Your task to perform on an android device: find snoozed emails in the gmail app Image 0: 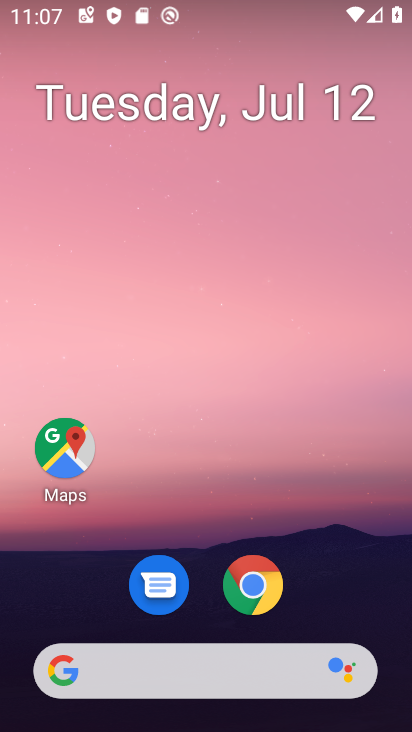
Step 0: drag from (330, 572) to (357, 97)
Your task to perform on an android device: find snoozed emails in the gmail app Image 1: 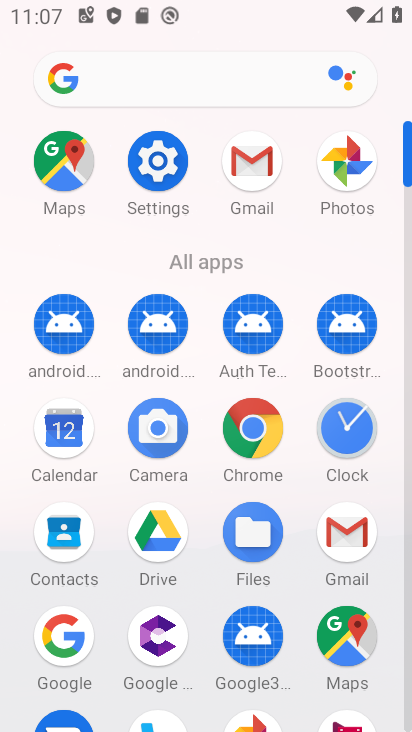
Step 1: click (264, 163)
Your task to perform on an android device: find snoozed emails in the gmail app Image 2: 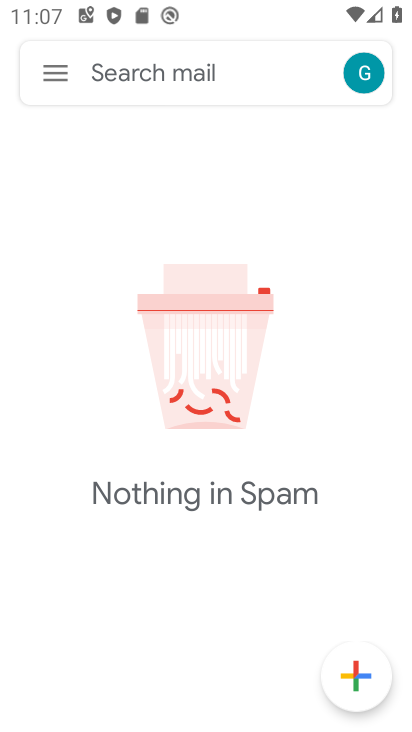
Step 2: click (60, 82)
Your task to perform on an android device: find snoozed emails in the gmail app Image 3: 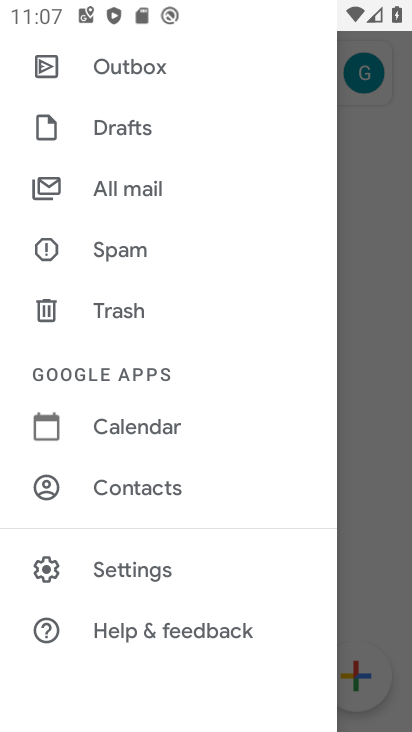
Step 3: drag from (189, 152) to (232, 641)
Your task to perform on an android device: find snoozed emails in the gmail app Image 4: 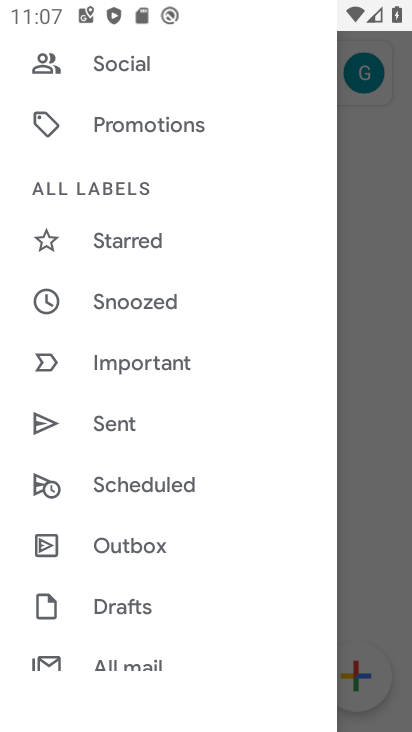
Step 4: click (143, 305)
Your task to perform on an android device: find snoozed emails in the gmail app Image 5: 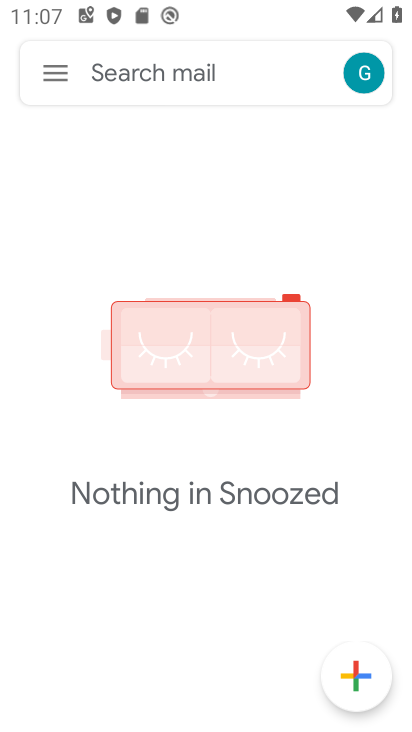
Step 5: task complete